Your task to perform on an android device: check data usage Image 0: 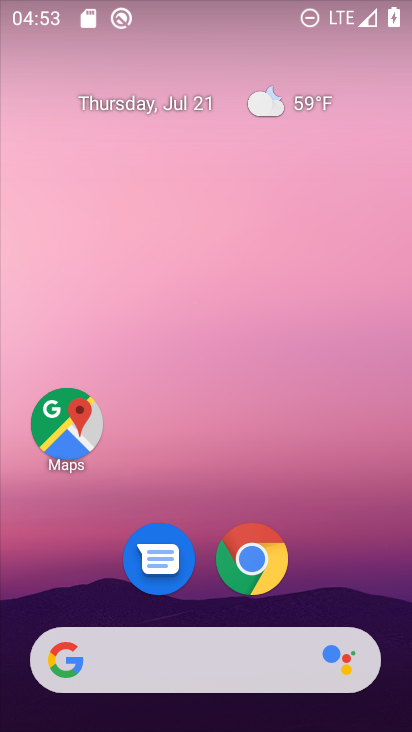
Step 0: drag from (78, 592) to (203, 7)
Your task to perform on an android device: check data usage Image 1: 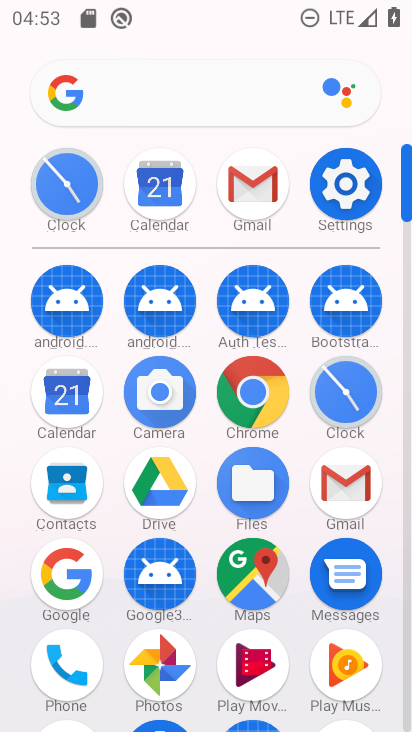
Step 1: click (348, 190)
Your task to perform on an android device: check data usage Image 2: 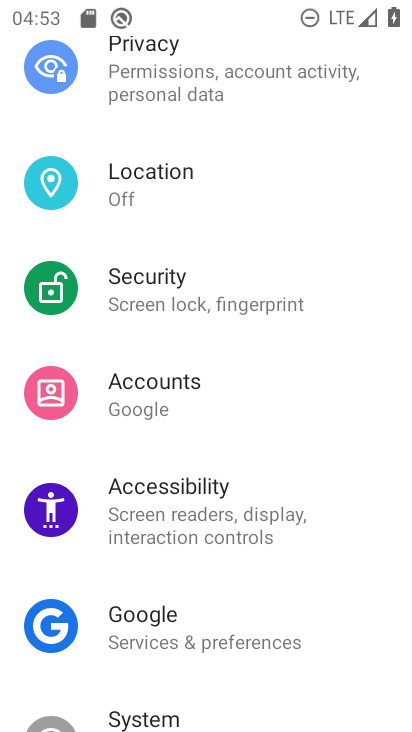
Step 2: drag from (264, 161) to (175, 722)
Your task to perform on an android device: check data usage Image 3: 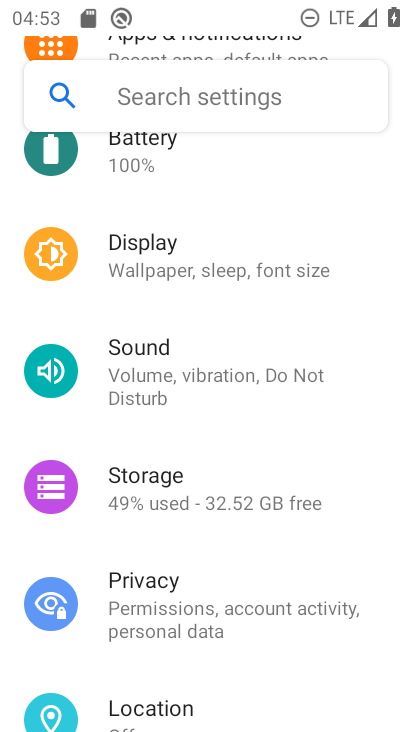
Step 3: drag from (282, 186) to (198, 725)
Your task to perform on an android device: check data usage Image 4: 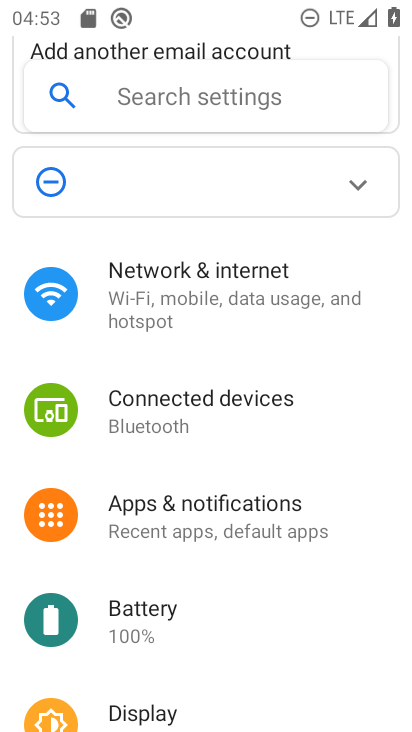
Step 4: click (161, 288)
Your task to perform on an android device: check data usage Image 5: 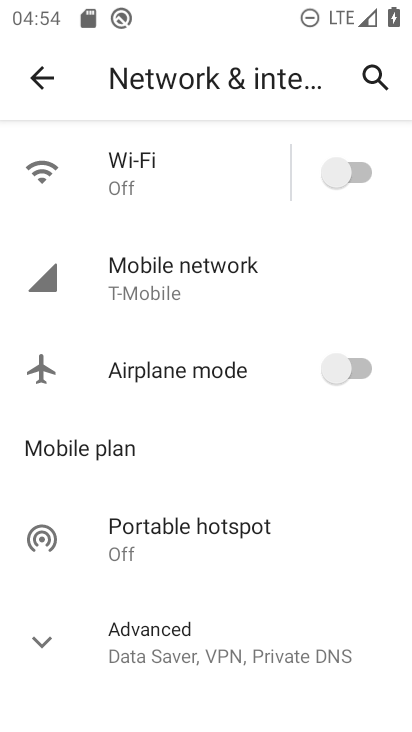
Step 5: click (161, 288)
Your task to perform on an android device: check data usage Image 6: 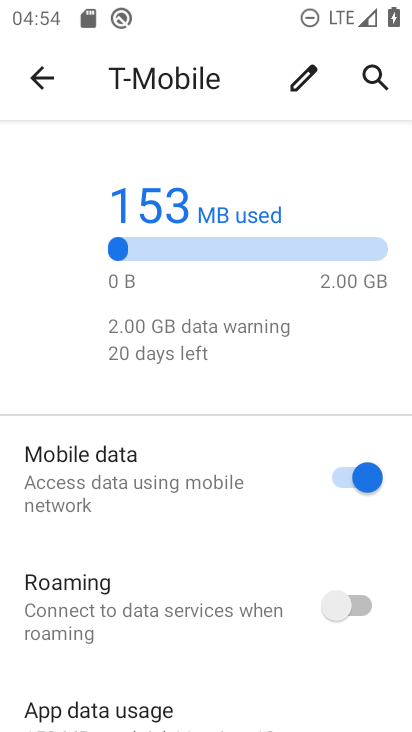
Step 6: click (85, 696)
Your task to perform on an android device: check data usage Image 7: 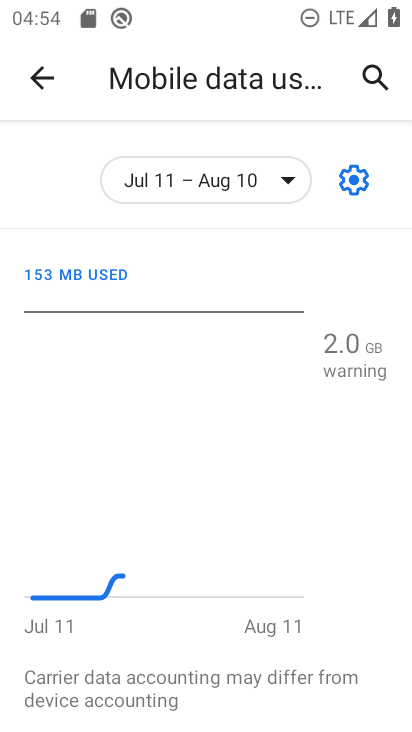
Step 7: task complete